Your task to perform on an android device: Open wifi settings Image 0: 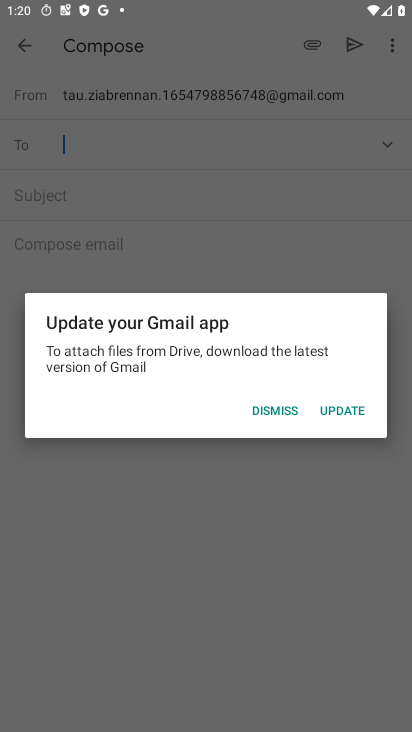
Step 0: press home button
Your task to perform on an android device: Open wifi settings Image 1: 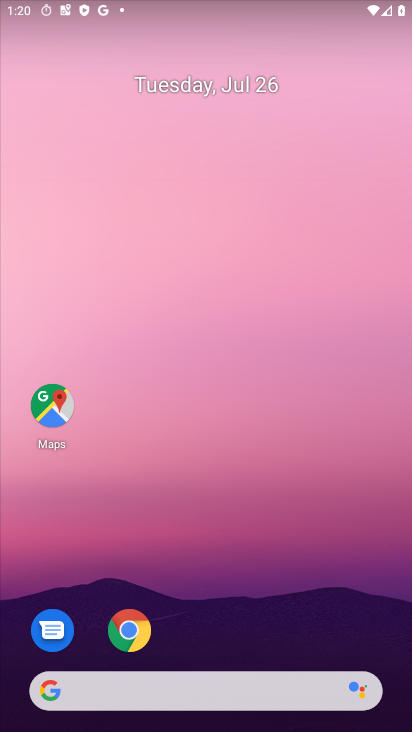
Step 1: drag from (274, 631) to (287, 176)
Your task to perform on an android device: Open wifi settings Image 2: 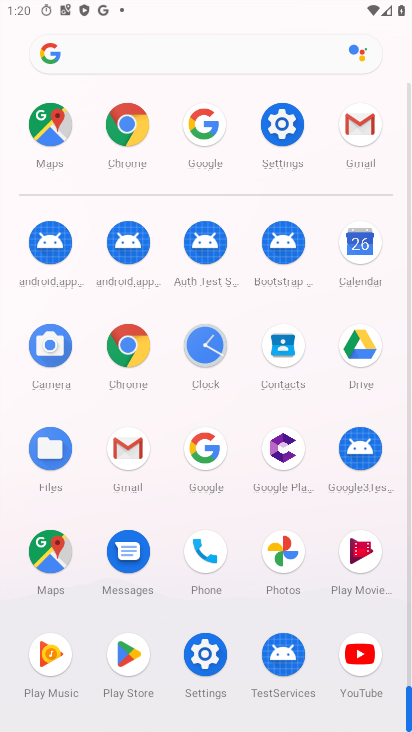
Step 2: click (278, 133)
Your task to perform on an android device: Open wifi settings Image 3: 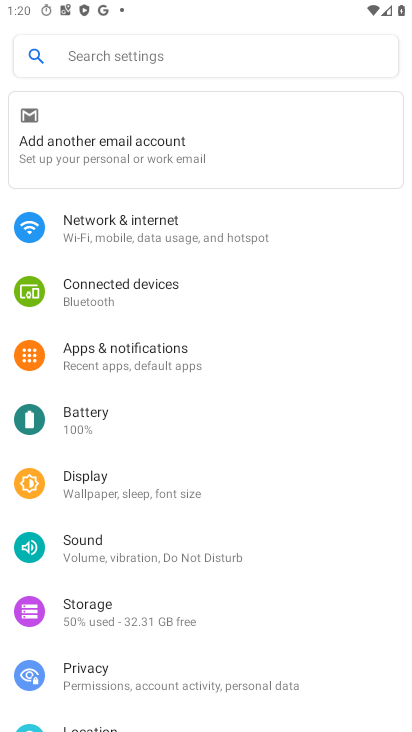
Step 3: click (151, 226)
Your task to perform on an android device: Open wifi settings Image 4: 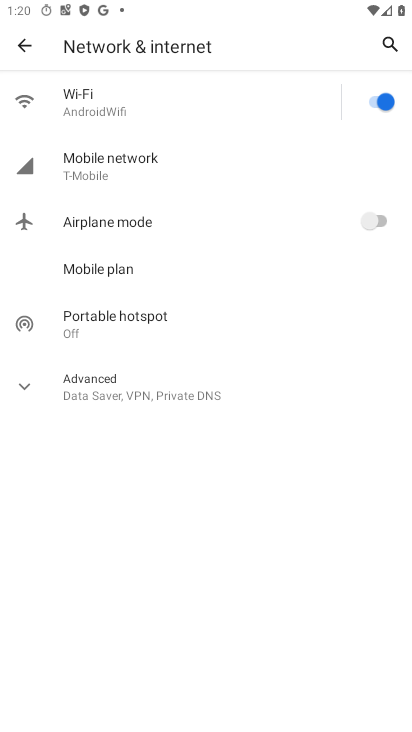
Step 4: click (184, 105)
Your task to perform on an android device: Open wifi settings Image 5: 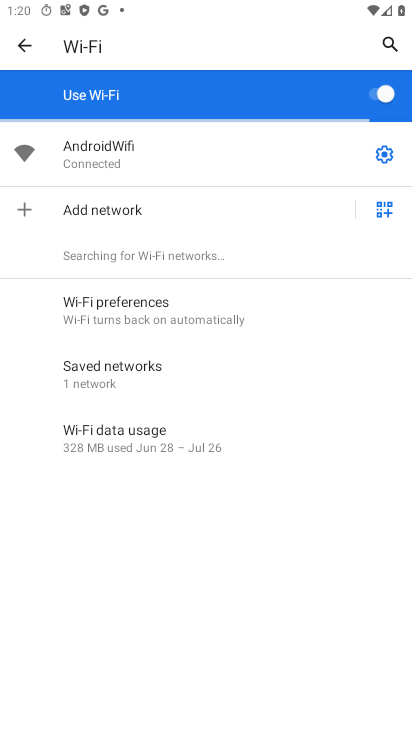
Step 5: task complete